Your task to perform on an android device: empty trash in the gmail app Image 0: 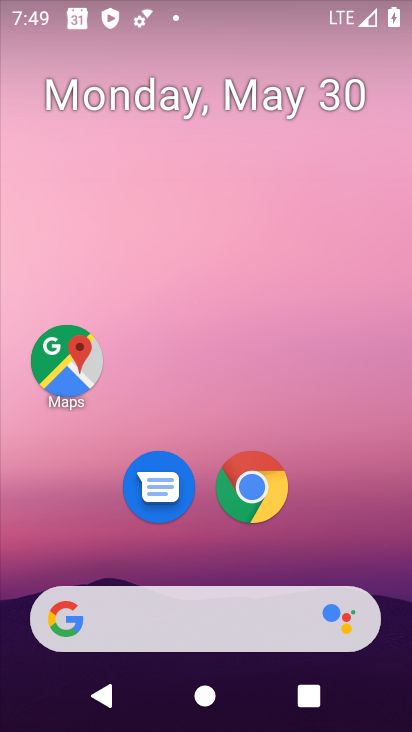
Step 0: drag from (398, 718) to (342, 39)
Your task to perform on an android device: empty trash in the gmail app Image 1: 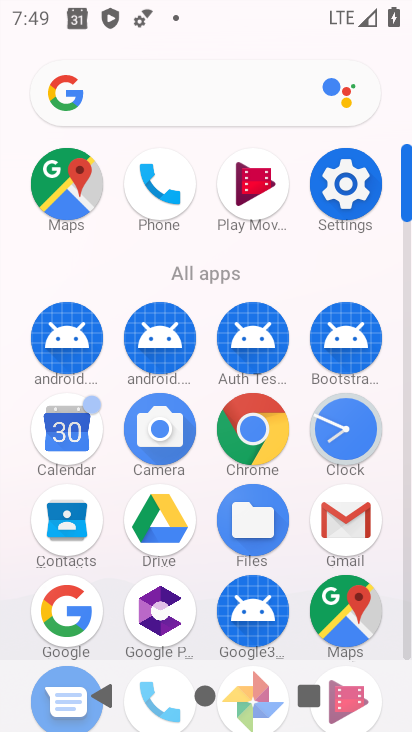
Step 1: click (348, 528)
Your task to perform on an android device: empty trash in the gmail app Image 2: 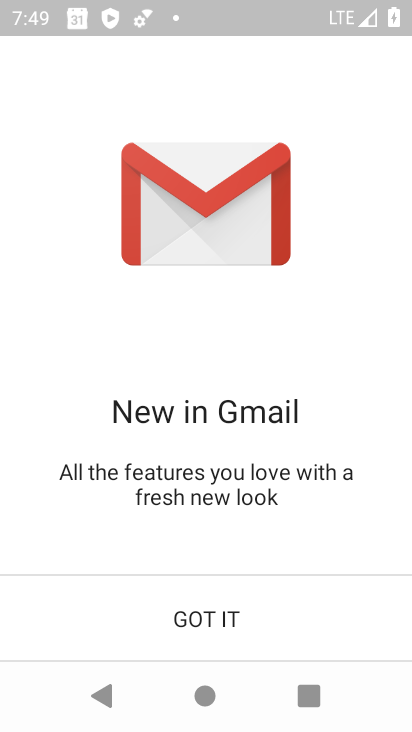
Step 2: click (214, 614)
Your task to perform on an android device: empty trash in the gmail app Image 3: 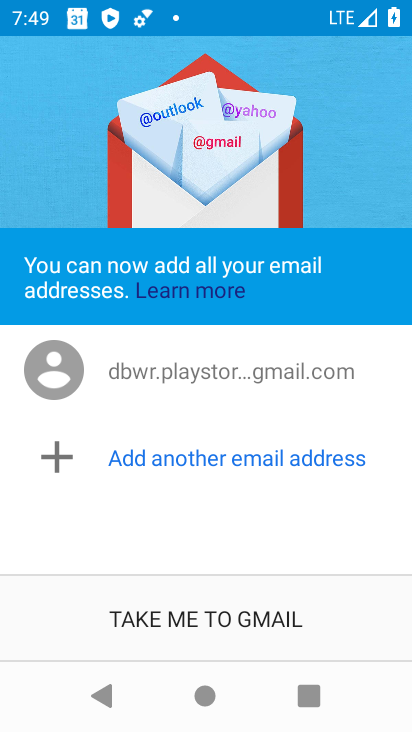
Step 3: click (260, 619)
Your task to perform on an android device: empty trash in the gmail app Image 4: 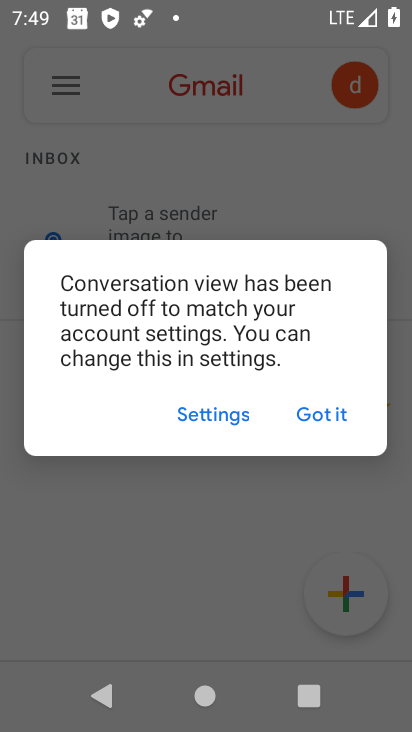
Step 4: click (314, 416)
Your task to perform on an android device: empty trash in the gmail app Image 5: 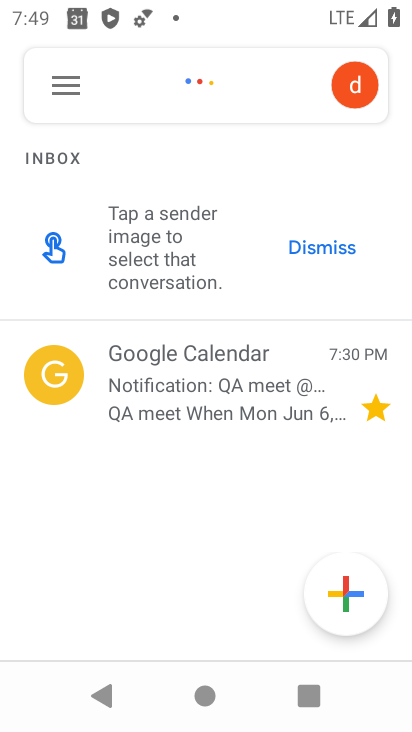
Step 5: click (68, 85)
Your task to perform on an android device: empty trash in the gmail app Image 6: 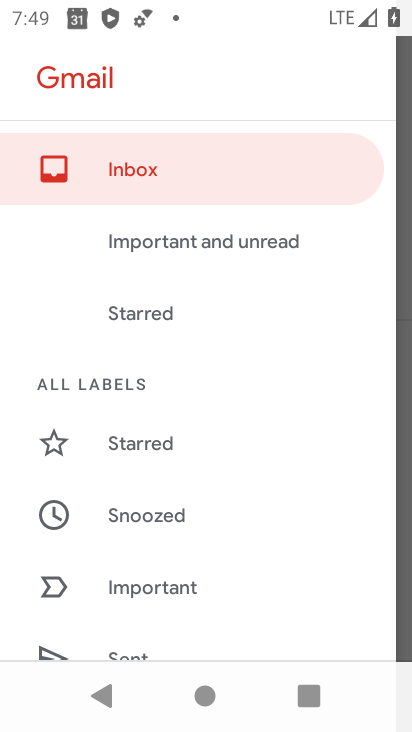
Step 6: drag from (266, 602) to (280, 251)
Your task to perform on an android device: empty trash in the gmail app Image 7: 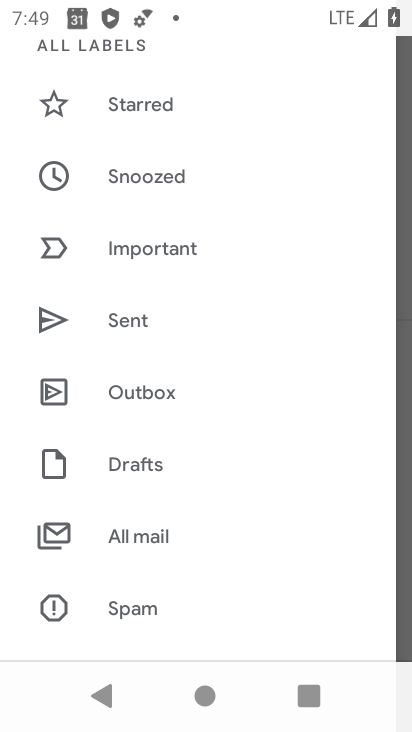
Step 7: drag from (247, 624) to (257, 355)
Your task to perform on an android device: empty trash in the gmail app Image 8: 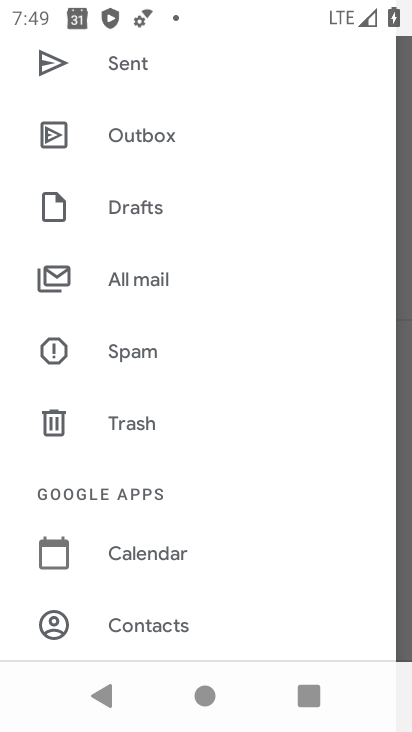
Step 8: click (113, 416)
Your task to perform on an android device: empty trash in the gmail app Image 9: 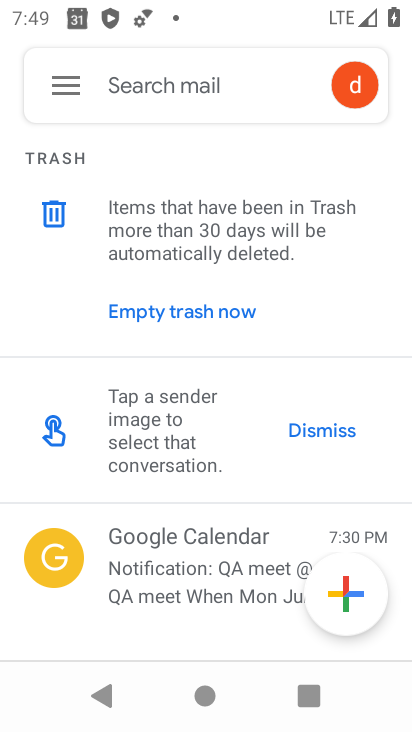
Step 9: click (41, 221)
Your task to perform on an android device: empty trash in the gmail app Image 10: 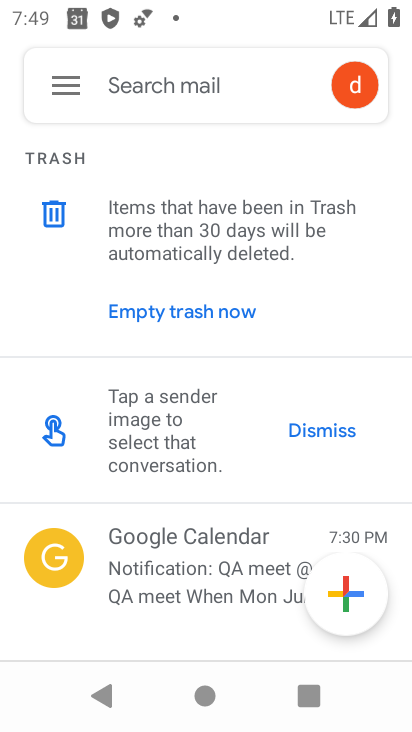
Step 10: click (164, 310)
Your task to perform on an android device: empty trash in the gmail app Image 11: 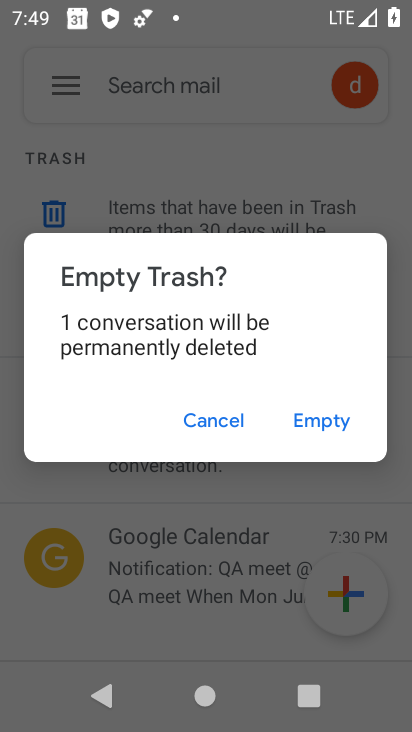
Step 11: click (308, 424)
Your task to perform on an android device: empty trash in the gmail app Image 12: 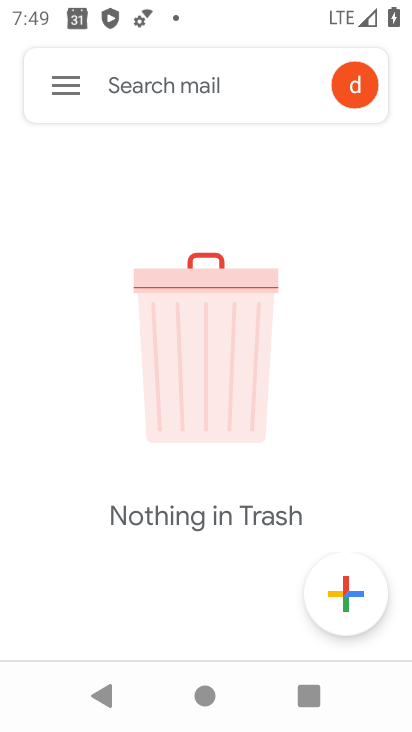
Step 12: task complete